Your task to perform on an android device: change the clock style Image 0: 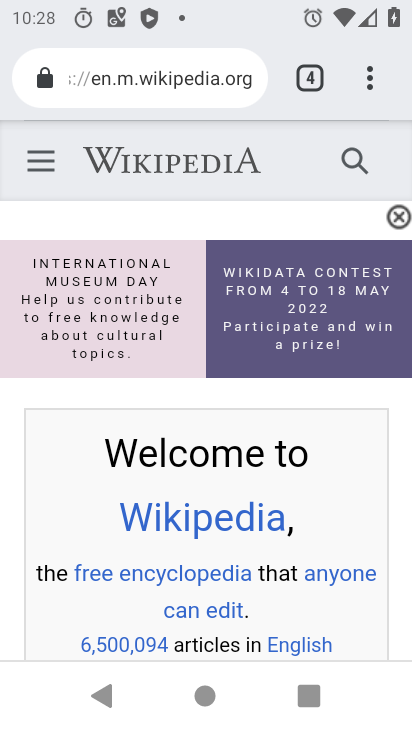
Step 0: press home button
Your task to perform on an android device: change the clock style Image 1: 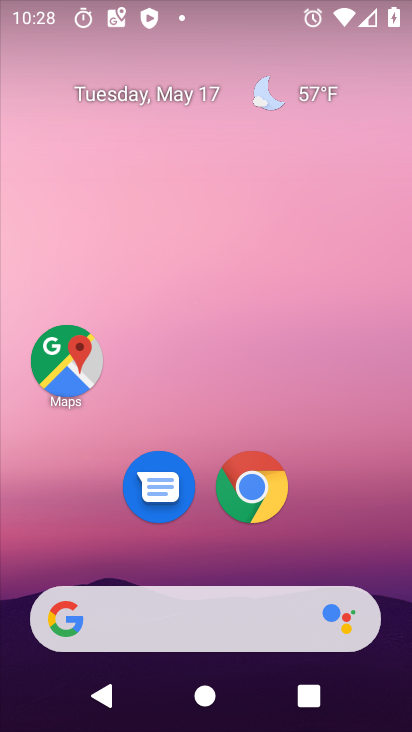
Step 1: drag from (237, 724) to (234, 203)
Your task to perform on an android device: change the clock style Image 2: 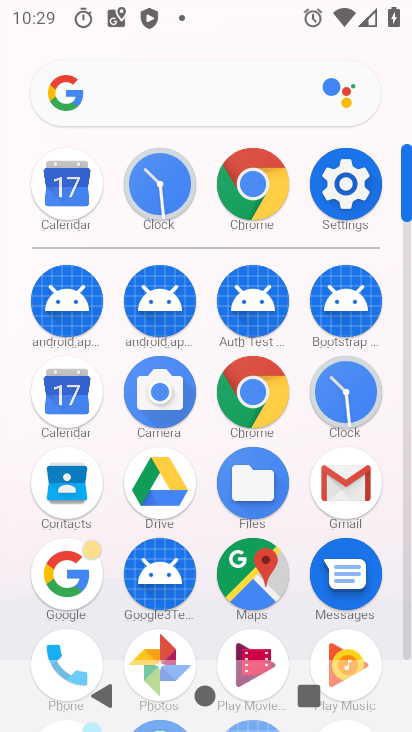
Step 2: click (342, 399)
Your task to perform on an android device: change the clock style Image 3: 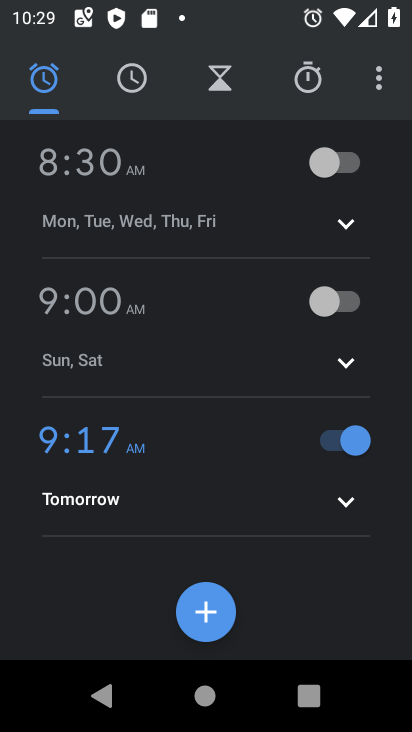
Step 3: click (381, 88)
Your task to perform on an android device: change the clock style Image 4: 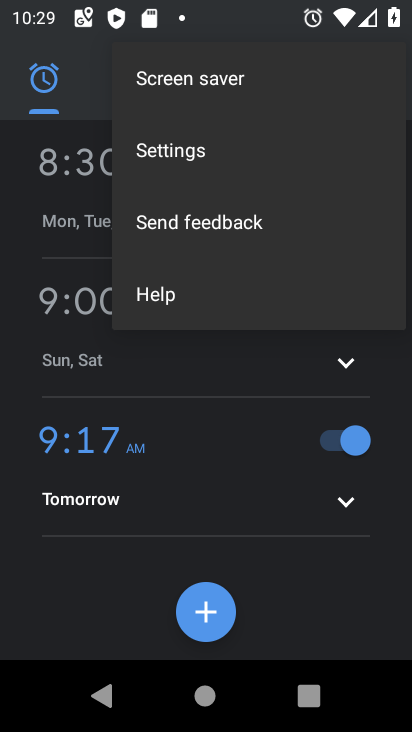
Step 4: click (181, 149)
Your task to perform on an android device: change the clock style Image 5: 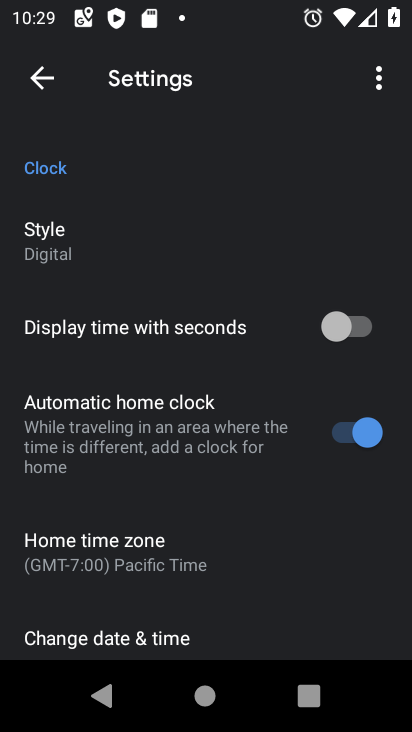
Step 5: click (36, 247)
Your task to perform on an android device: change the clock style Image 6: 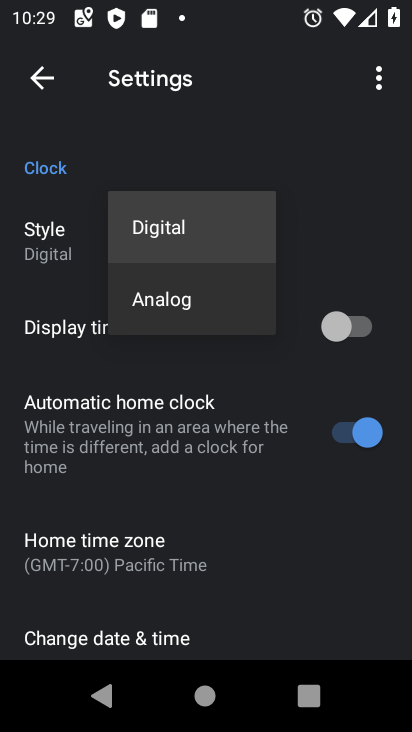
Step 6: click (154, 294)
Your task to perform on an android device: change the clock style Image 7: 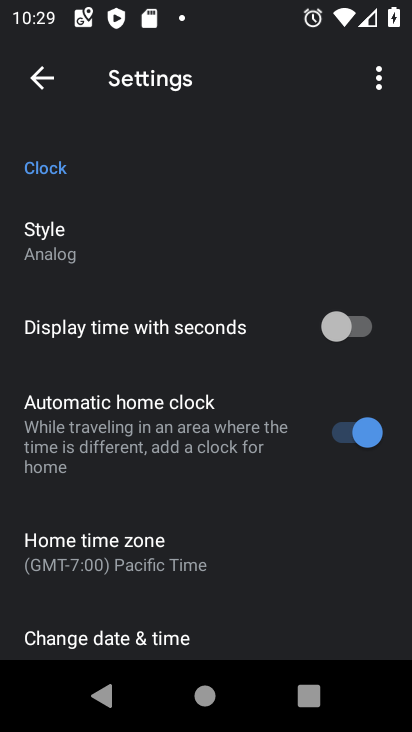
Step 7: task complete